Your task to perform on an android device: Do I have any events tomorrow? Image 0: 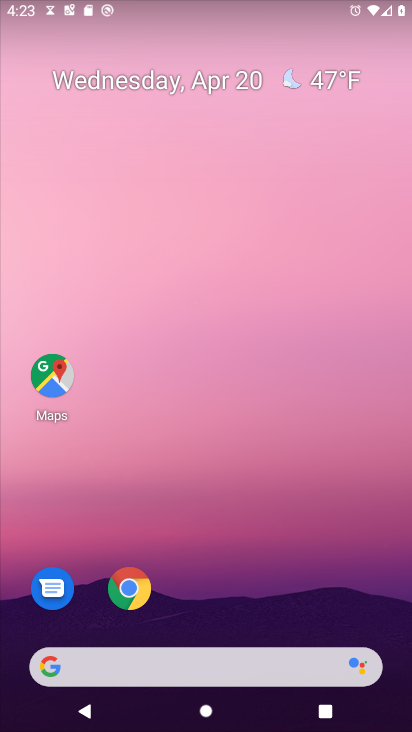
Step 0: drag from (317, 578) to (313, 4)
Your task to perform on an android device: Do I have any events tomorrow? Image 1: 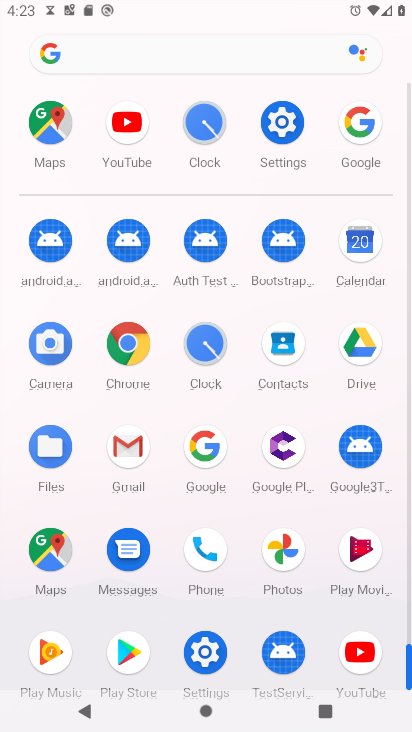
Step 1: click (357, 241)
Your task to perform on an android device: Do I have any events tomorrow? Image 2: 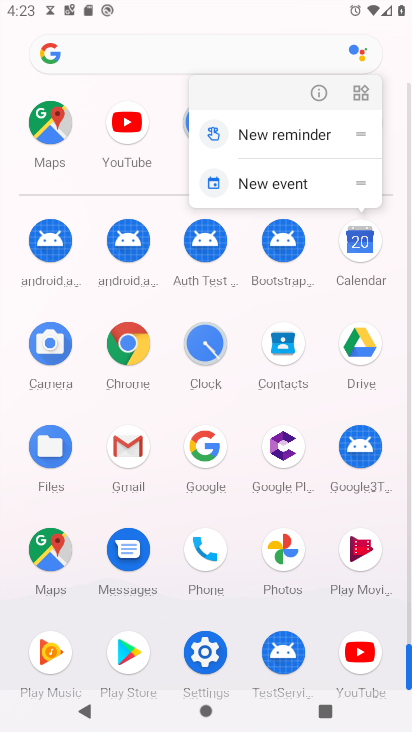
Step 2: click (353, 245)
Your task to perform on an android device: Do I have any events tomorrow? Image 3: 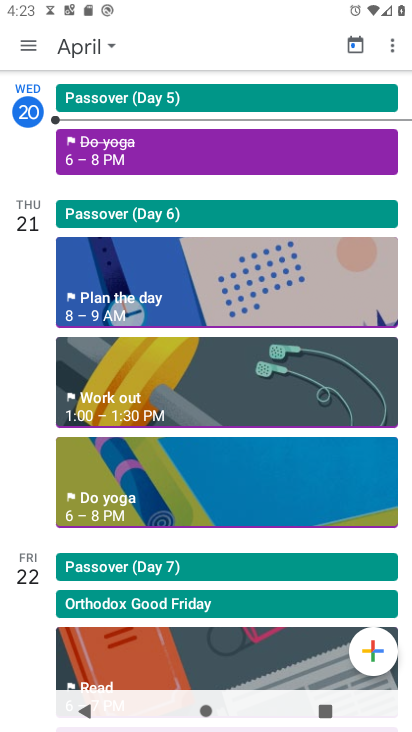
Step 3: click (75, 41)
Your task to perform on an android device: Do I have any events tomorrow? Image 4: 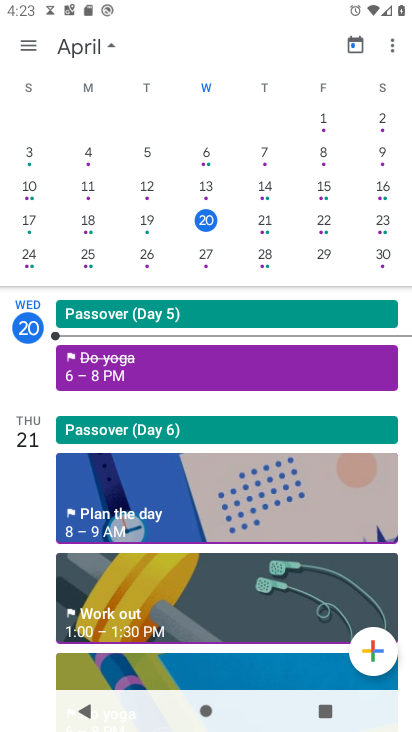
Step 4: click (269, 225)
Your task to perform on an android device: Do I have any events tomorrow? Image 5: 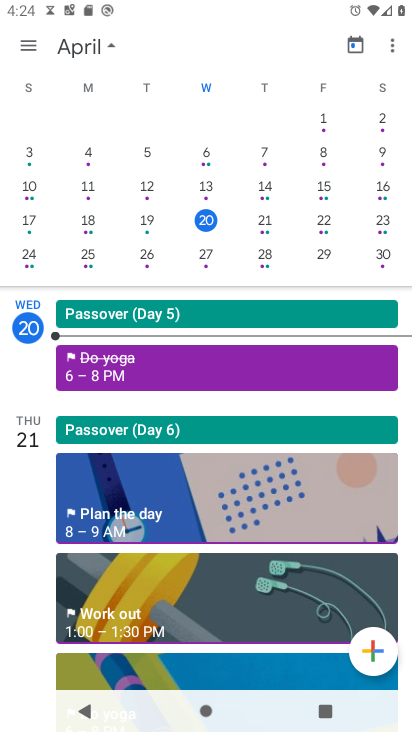
Step 5: click (268, 224)
Your task to perform on an android device: Do I have any events tomorrow? Image 6: 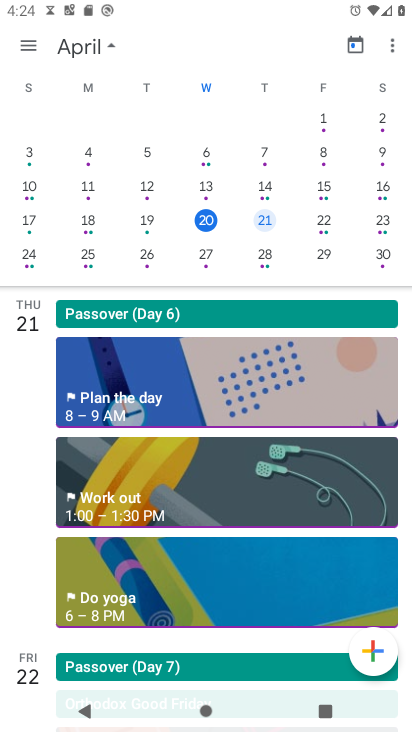
Step 6: task complete